Your task to perform on an android device: change the clock display to digital Image 0: 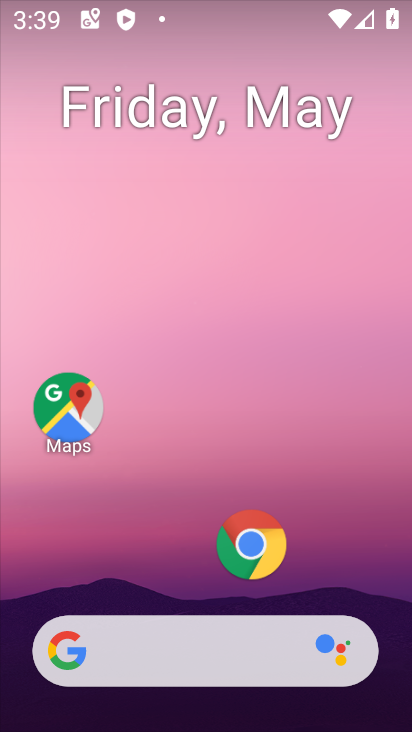
Step 0: drag from (194, 581) to (228, 171)
Your task to perform on an android device: change the clock display to digital Image 1: 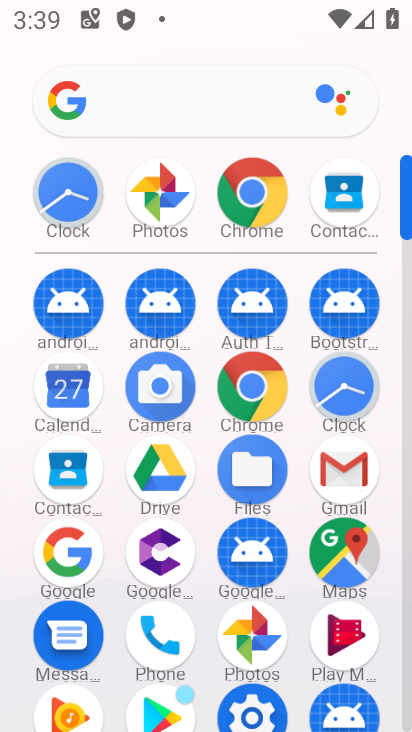
Step 1: click (72, 220)
Your task to perform on an android device: change the clock display to digital Image 2: 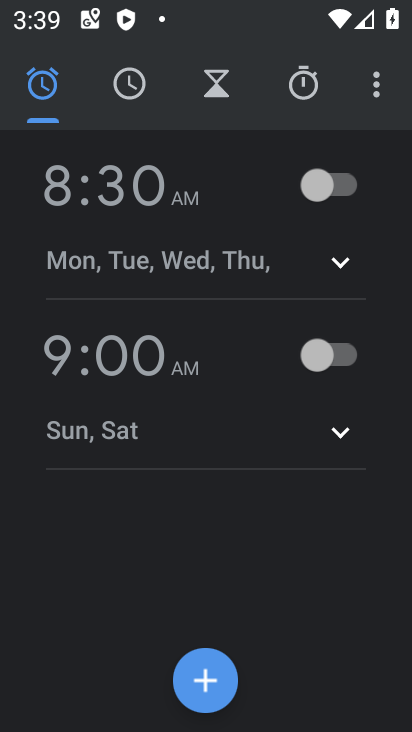
Step 2: click (373, 85)
Your task to perform on an android device: change the clock display to digital Image 3: 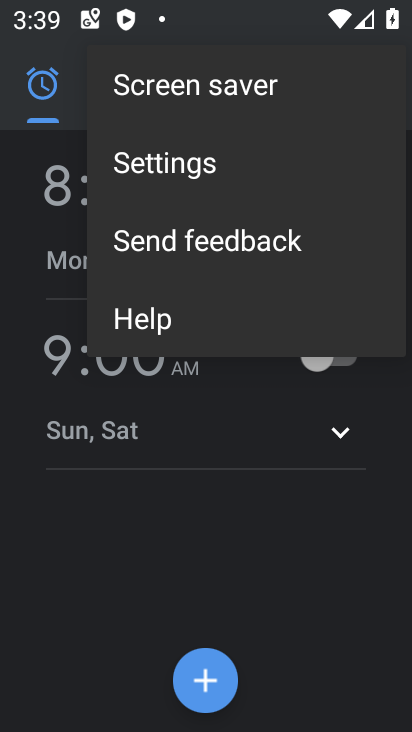
Step 3: click (260, 166)
Your task to perform on an android device: change the clock display to digital Image 4: 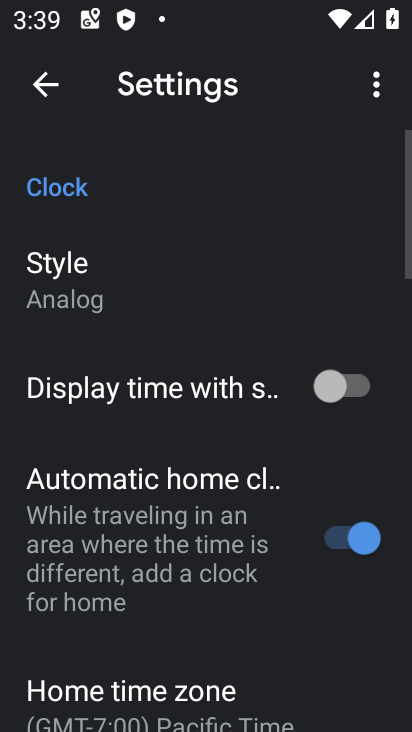
Step 4: click (128, 302)
Your task to perform on an android device: change the clock display to digital Image 5: 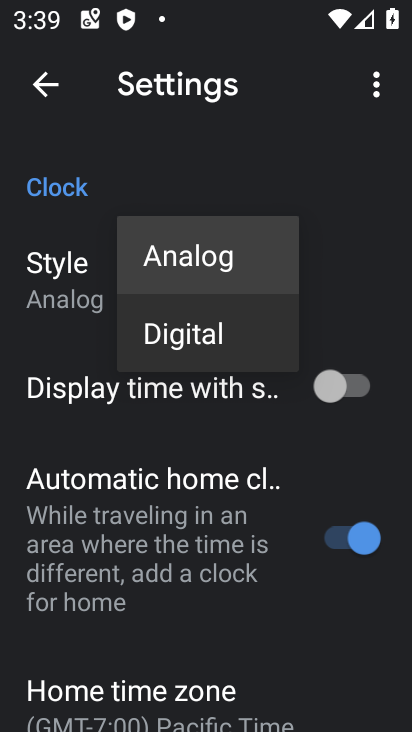
Step 5: click (158, 324)
Your task to perform on an android device: change the clock display to digital Image 6: 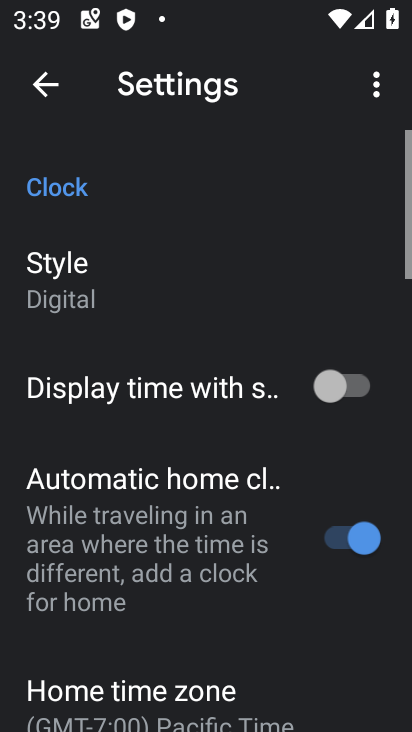
Step 6: task complete